Your task to perform on an android device: Open calendar and show me the fourth week of next month Image 0: 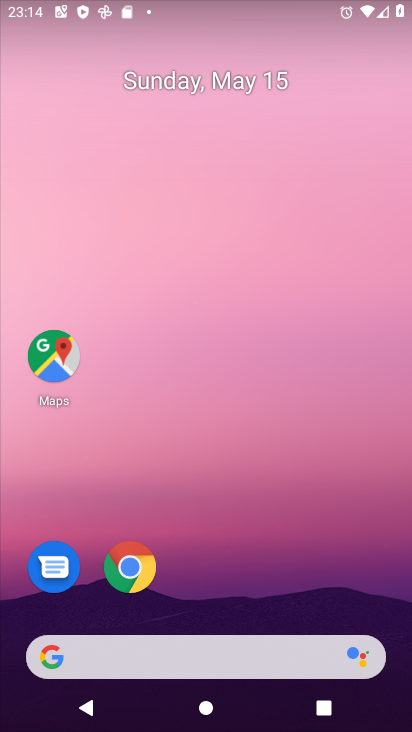
Step 0: drag from (252, 700) to (170, 55)
Your task to perform on an android device: Open calendar and show me the fourth week of next month Image 1: 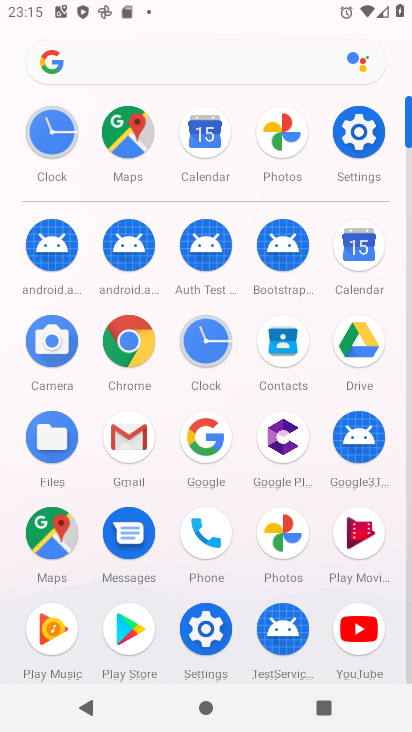
Step 1: click (362, 257)
Your task to perform on an android device: Open calendar and show me the fourth week of next month Image 2: 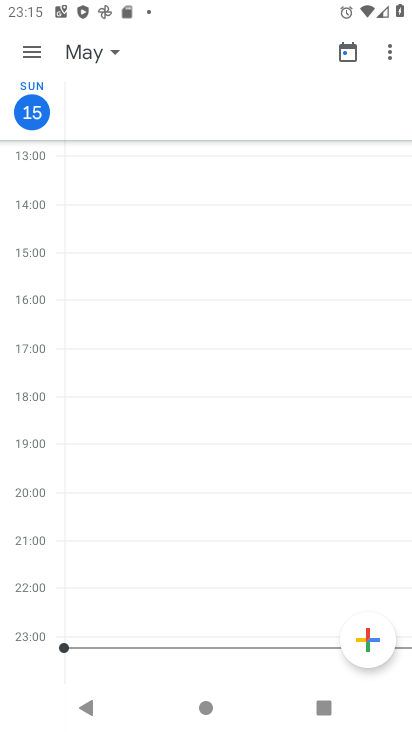
Step 2: click (98, 46)
Your task to perform on an android device: Open calendar and show me the fourth week of next month Image 3: 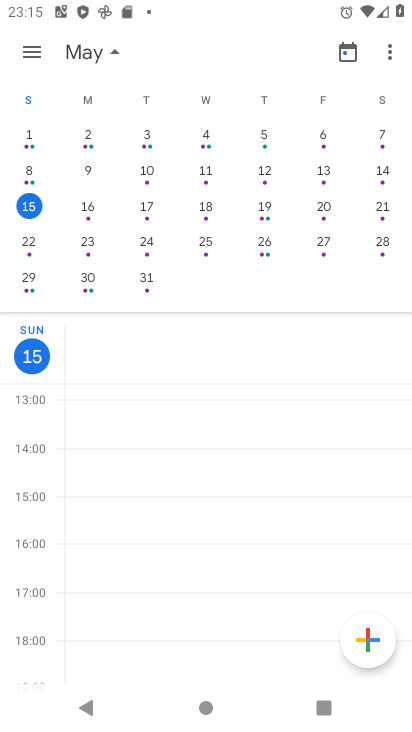
Step 3: drag from (392, 199) to (12, 255)
Your task to perform on an android device: Open calendar and show me the fourth week of next month Image 4: 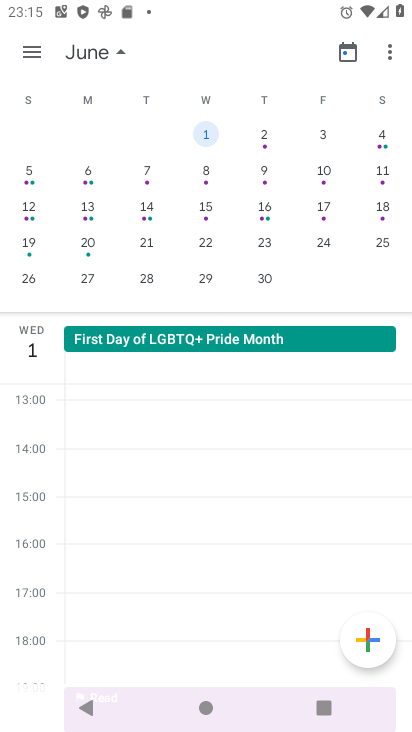
Step 4: click (30, 245)
Your task to perform on an android device: Open calendar and show me the fourth week of next month Image 5: 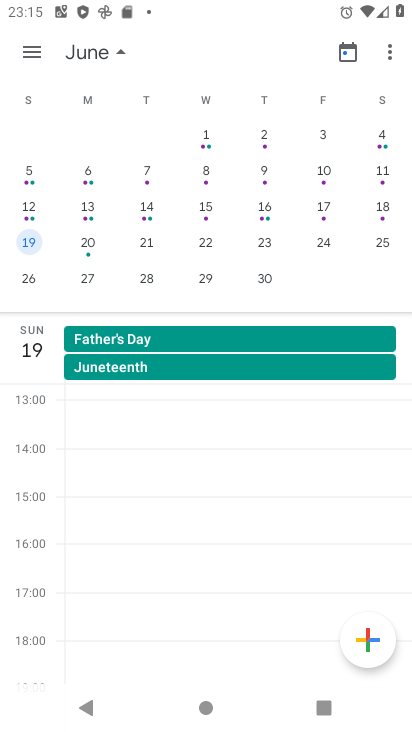
Step 5: task complete